Your task to perform on an android device: toggle pop-ups in chrome Image 0: 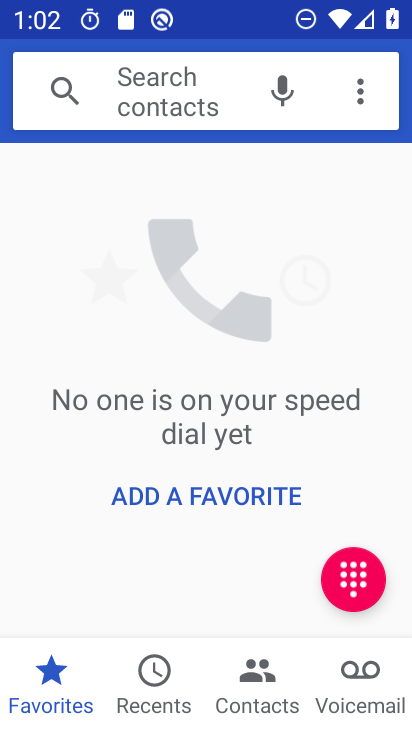
Step 0: press home button
Your task to perform on an android device: toggle pop-ups in chrome Image 1: 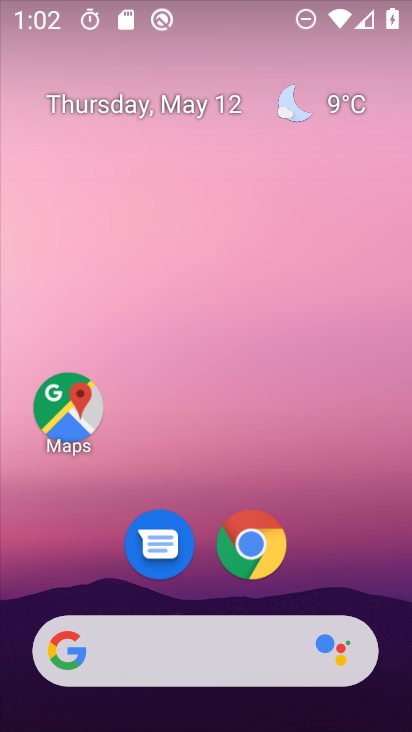
Step 1: click (257, 547)
Your task to perform on an android device: toggle pop-ups in chrome Image 2: 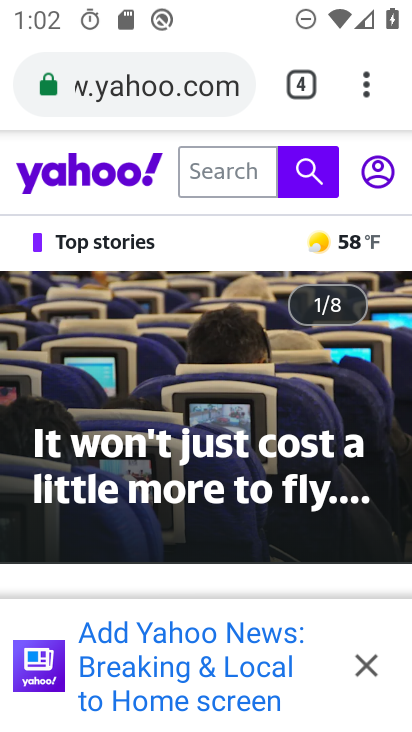
Step 2: click (365, 94)
Your task to perform on an android device: toggle pop-ups in chrome Image 3: 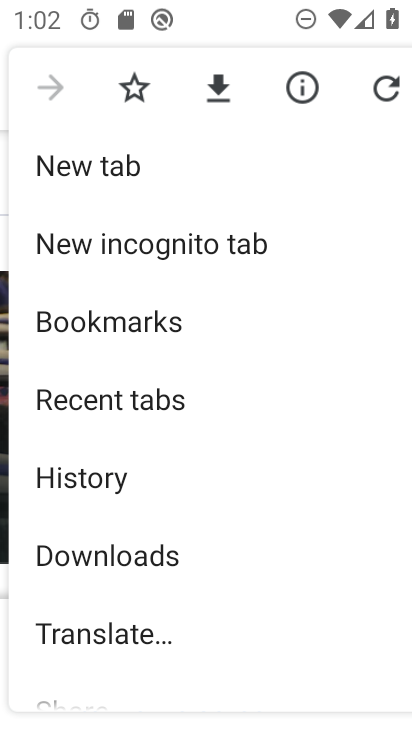
Step 3: drag from (156, 639) to (156, 227)
Your task to perform on an android device: toggle pop-ups in chrome Image 4: 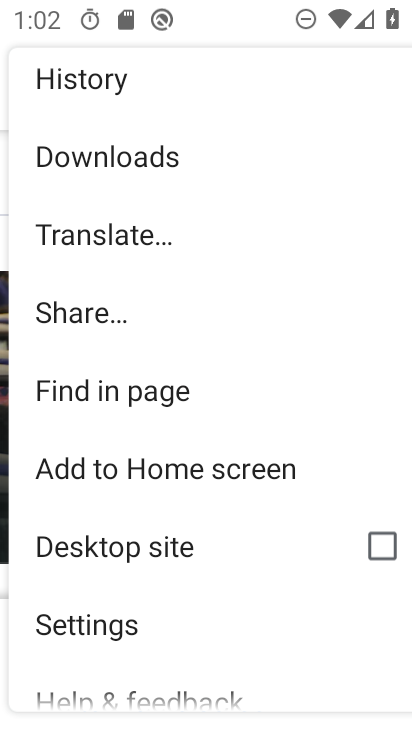
Step 4: click (109, 623)
Your task to perform on an android device: toggle pop-ups in chrome Image 5: 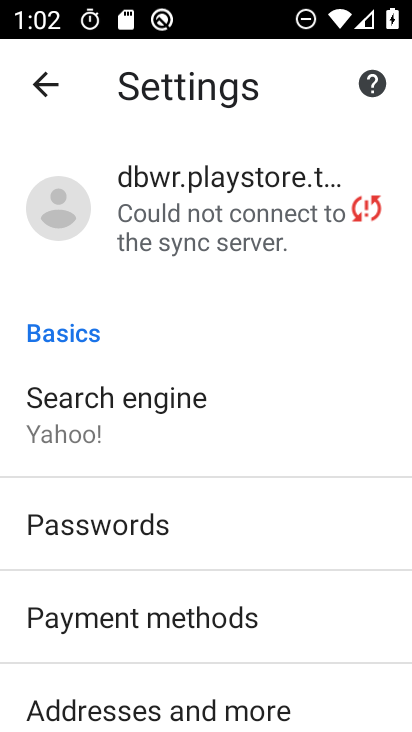
Step 5: drag from (175, 557) to (181, 317)
Your task to perform on an android device: toggle pop-ups in chrome Image 6: 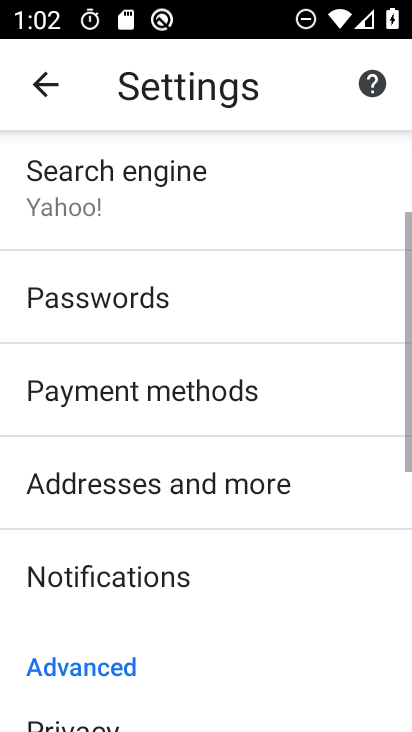
Step 6: drag from (197, 686) to (193, 389)
Your task to perform on an android device: toggle pop-ups in chrome Image 7: 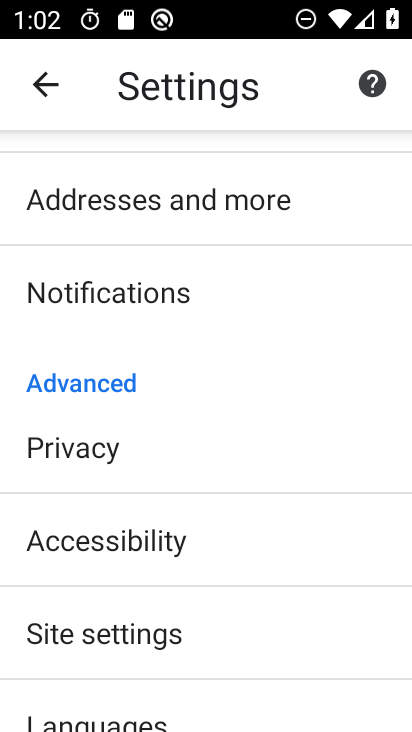
Step 7: drag from (261, 677) to (265, 311)
Your task to perform on an android device: toggle pop-ups in chrome Image 8: 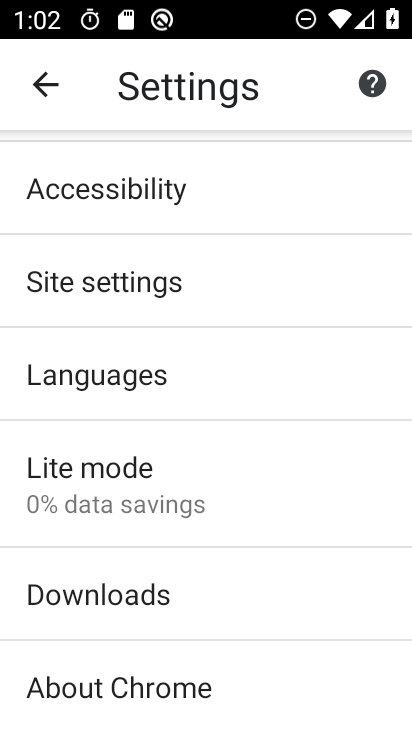
Step 8: click (154, 274)
Your task to perform on an android device: toggle pop-ups in chrome Image 9: 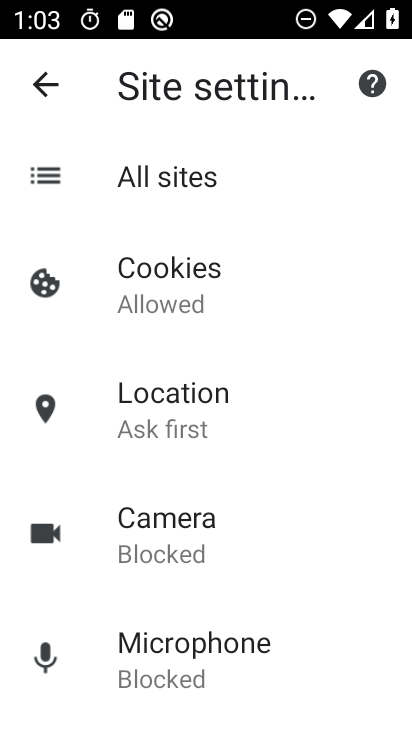
Step 9: drag from (249, 669) to (247, 240)
Your task to perform on an android device: toggle pop-ups in chrome Image 10: 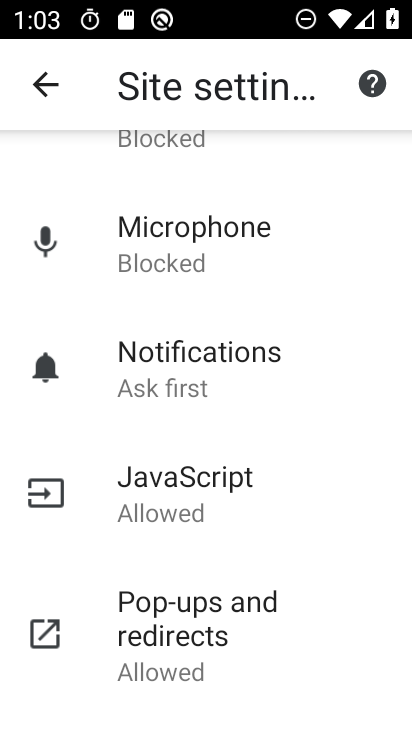
Step 10: drag from (216, 665) to (219, 208)
Your task to perform on an android device: toggle pop-ups in chrome Image 11: 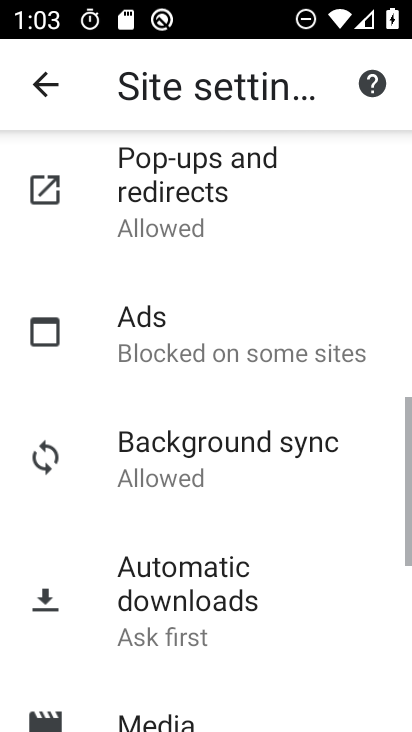
Step 11: drag from (194, 677) to (198, 216)
Your task to perform on an android device: toggle pop-ups in chrome Image 12: 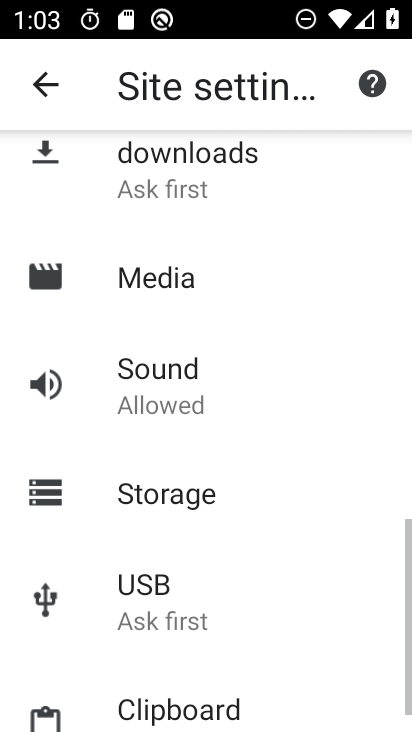
Step 12: drag from (256, 210) to (271, 636)
Your task to perform on an android device: toggle pop-ups in chrome Image 13: 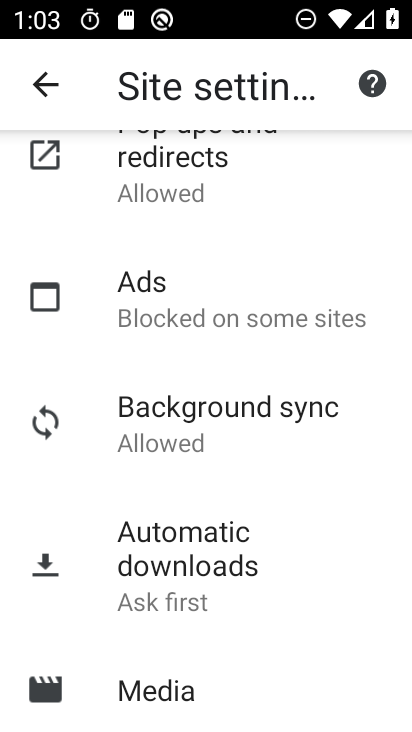
Step 13: drag from (261, 220) to (262, 553)
Your task to perform on an android device: toggle pop-ups in chrome Image 14: 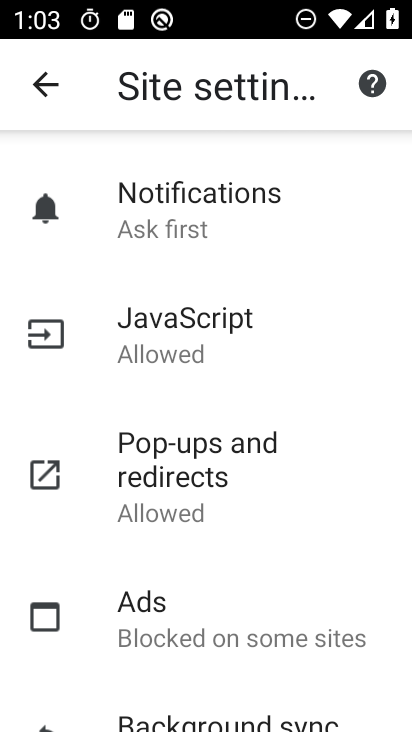
Step 14: click (175, 449)
Your task to perform on an android device: toggle pop-ups in chrome Image 15: 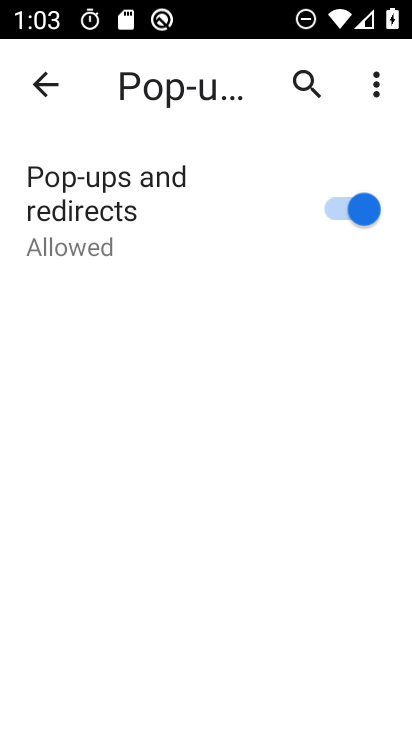
Step 15: task complete